Your task to perform on an android device: check the backup settings in the google photos Image 0: 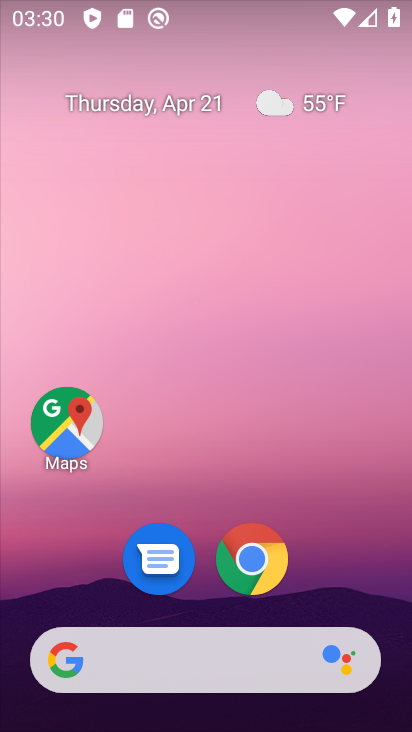
Step 0: drag from (336, 460) to (293, 2)
Your task to perform on an android device: check the backup settings in the google photos Image 1: 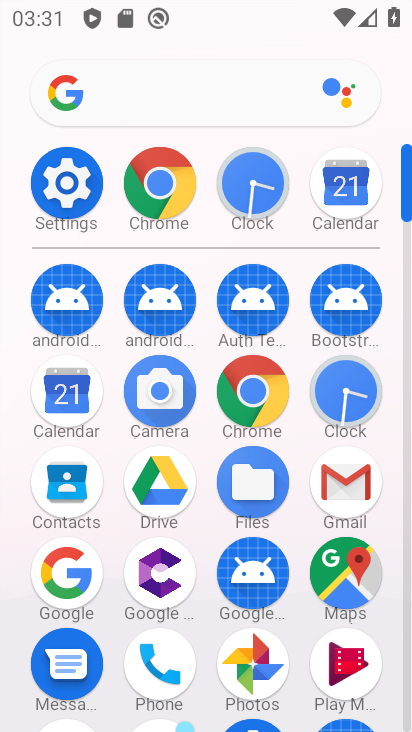
Step 1: click (228, 688)
Your task to perform on an android device: check the backup settings in the google photos Image 2: 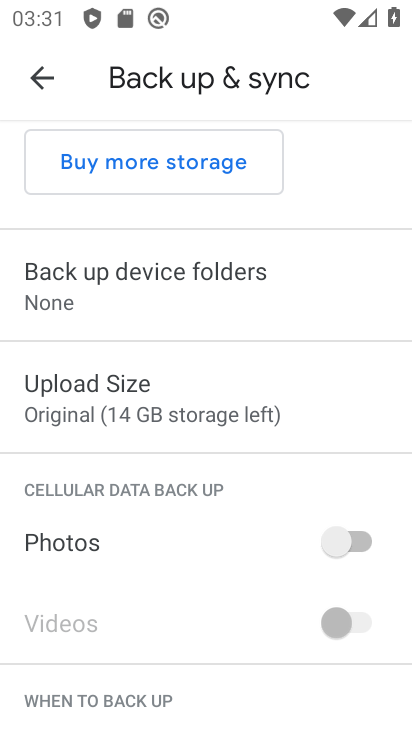
Step 2: task complete